Your task to perform on an android device: change the clock display to analog Image 0: 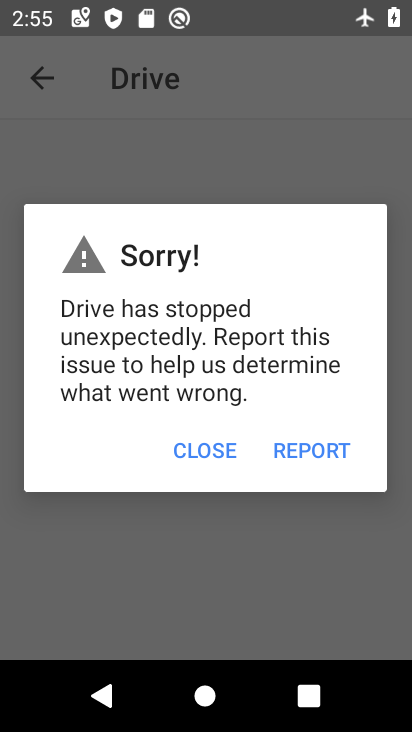
Step 0: press home button
Your task to perform on an android device: change the clock display to analog Image 1: 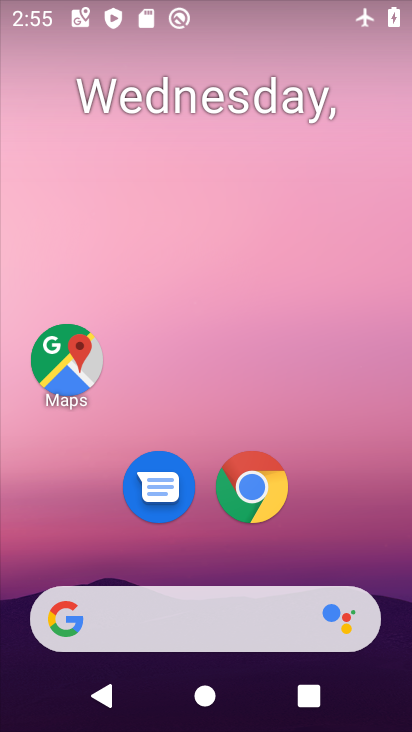
Step 1: drag from (326, 491) to (322, 44)
Your task to perform on an android device: change the clock display to analog Image 2: 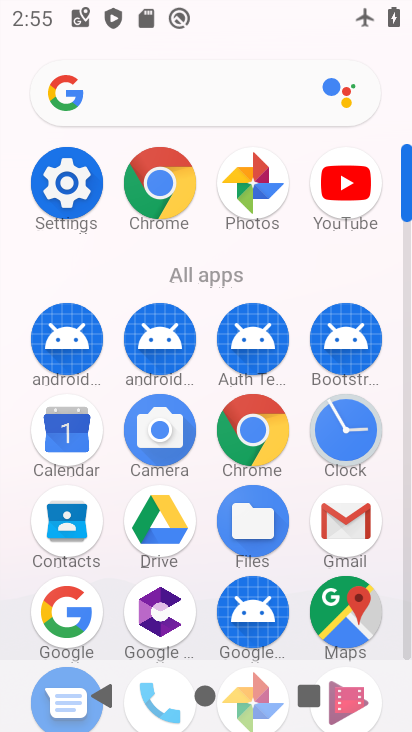
Step 2: click (357, 423)
Your task to perform on an android device: change the clock display to analog Image 3: 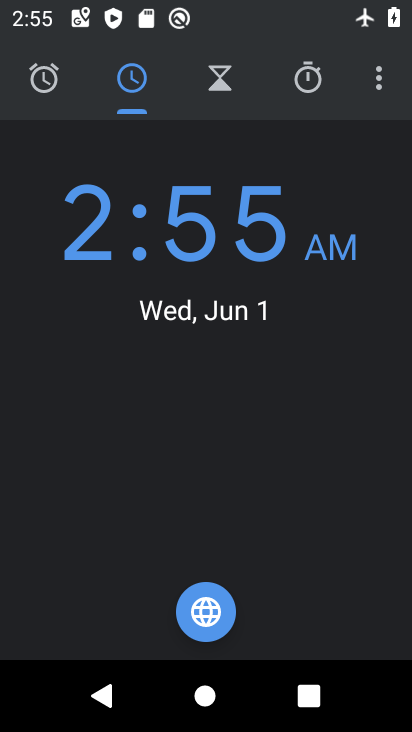
Step 3: click (379, 82)
Your task to perform on an android device: change the clock display to analog Image 4: 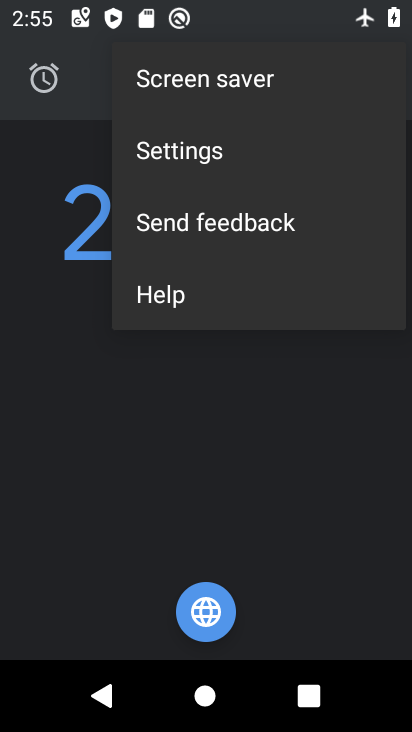
Step 4: click (245, 144)
Your task to perform on an android device: change the clock display to analog Image 5: 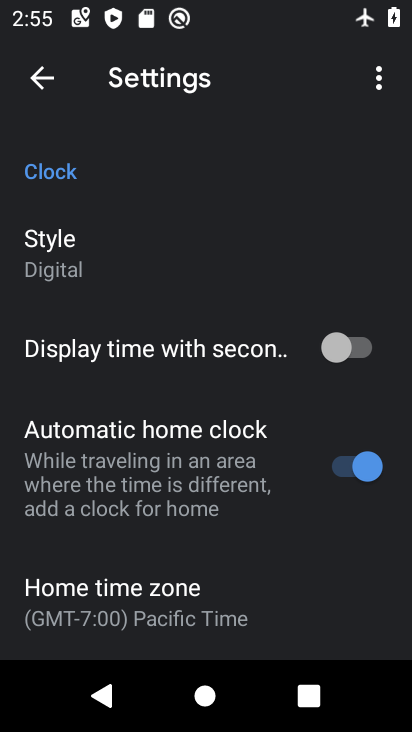
Step 5: click (123, 261)
Your task to perform on an android device: change the clock display to analog Image 6: 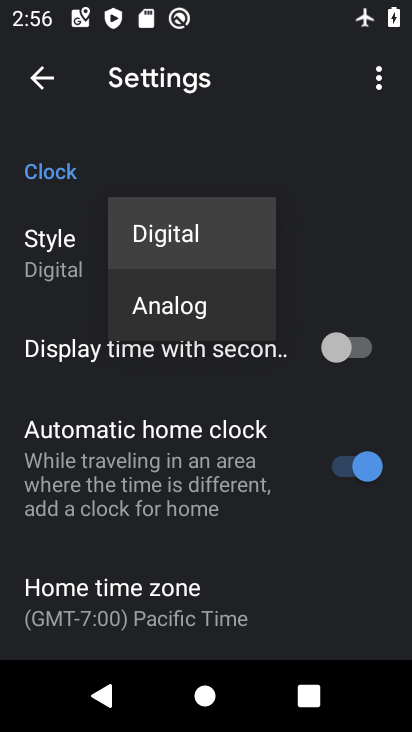
Step 6: click (152, 300)
Your task to perform on an android device: change the clock display to analog Image 7: 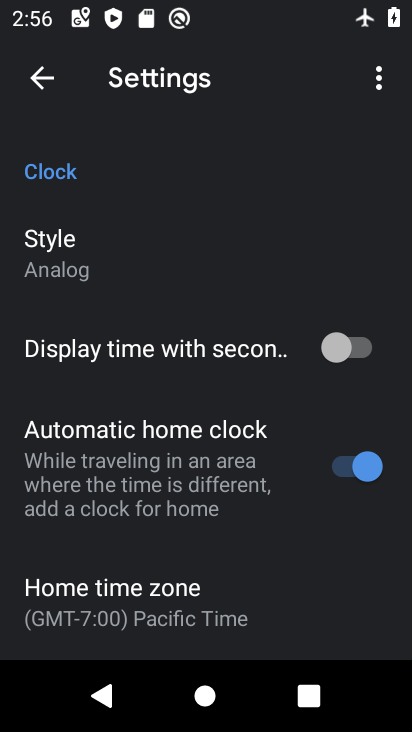
Step 7: click (39, 89)
Your task to perform on an android device: change the clock display to analog Image 8: 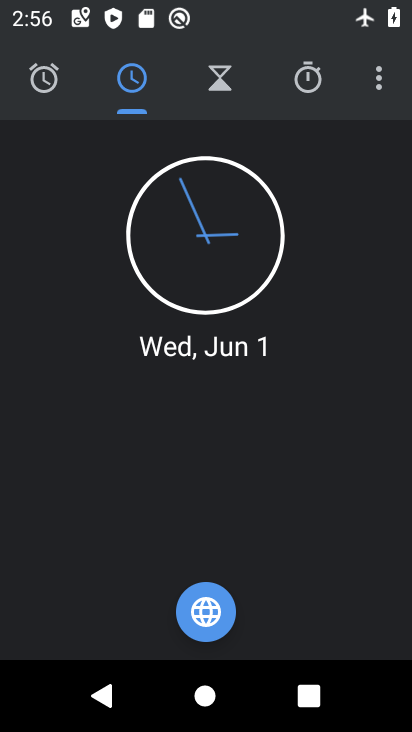
Step 8: task complete